Your task to perform on an android device: turn off airplane mode Image 0: 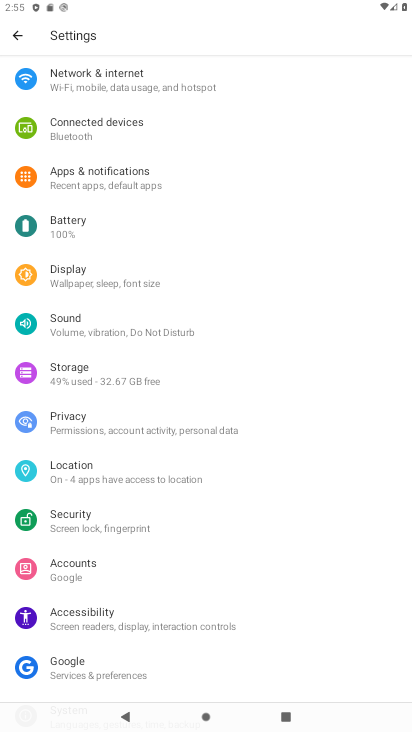
Step 0: click (95, 80)
Your task to perform on an android device: turn off airplane mode Image 1: 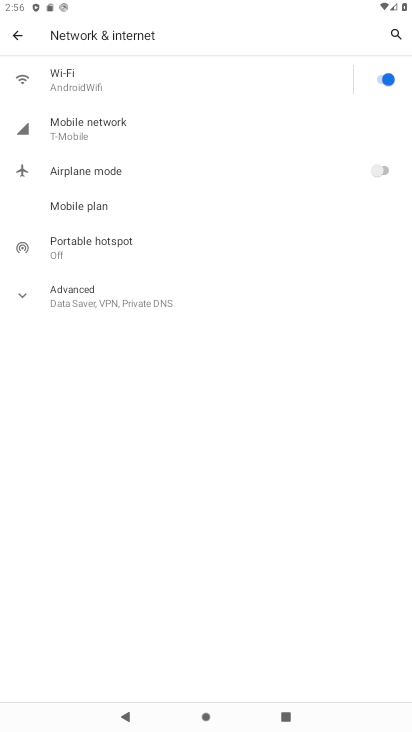
Step 1: task complete